Your task to perform on an android device: change timer sound Image 0: 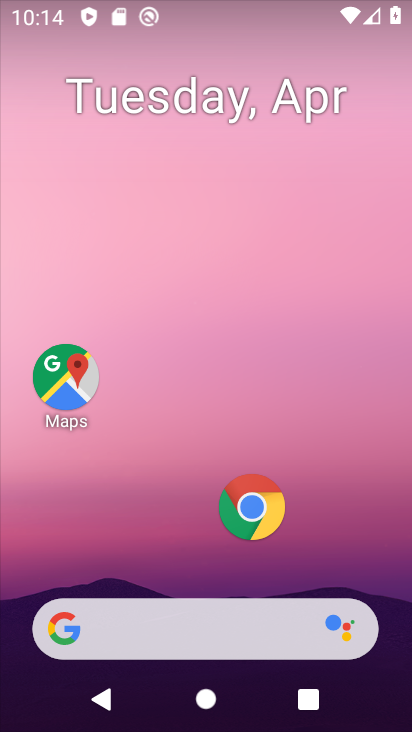
Step 0: drag from (82, 460) to (166, 249)
Your task to perform on an android device: change timer sound Image 1: 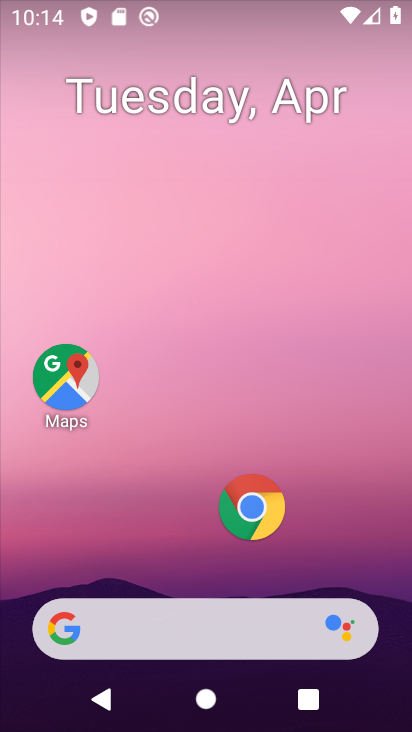
Step 1: drag from (170, 430) to (287, 223)
Your task to perform on an android device: change timer sound Image 2: 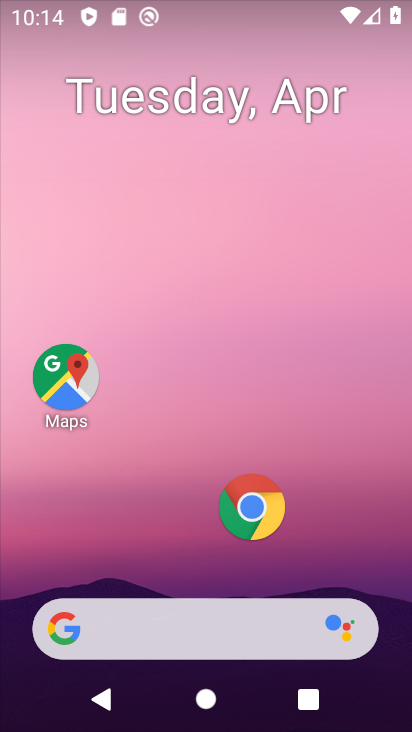
Step 2: drag from (47, 461) to (161, 199)
Your task to perform on an android device: change timer sound Image 3: 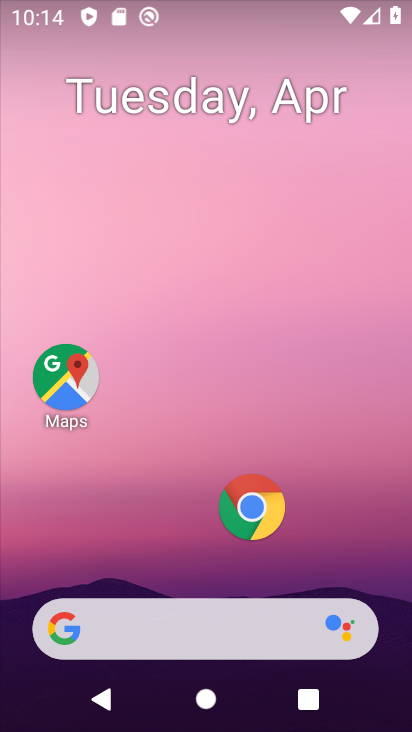
Step 3: drag from (13, 595) to (174, 188)
Your task to perform on an android device: change timer sound Image 4: 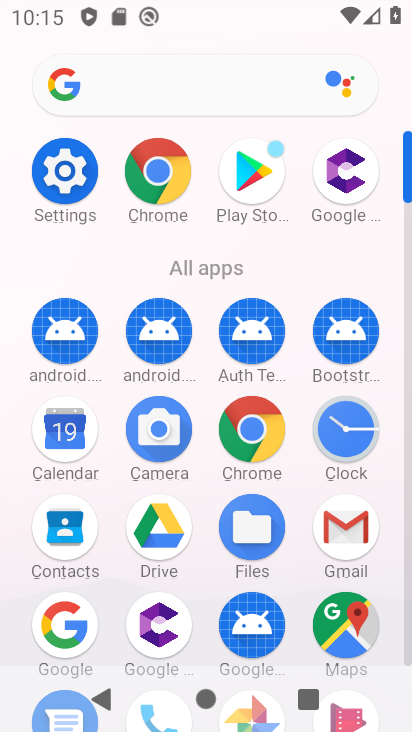
Step 4: click (348, 438)
Your task to perform on an android device: change timer sound Image 5: 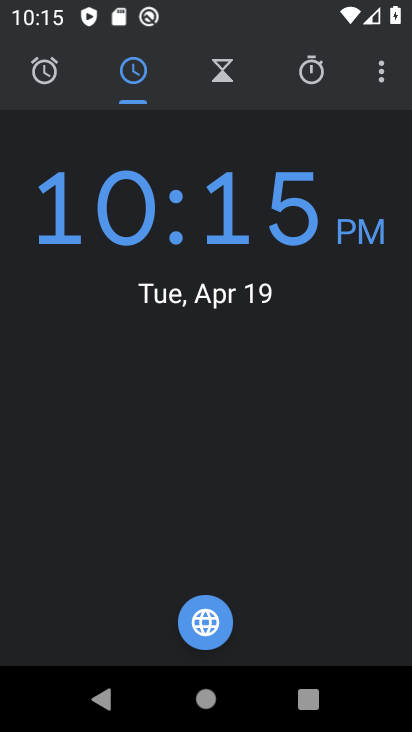
Step 5: click (377, 74)
Your task to perform on an android device: change timer sound Image 6: 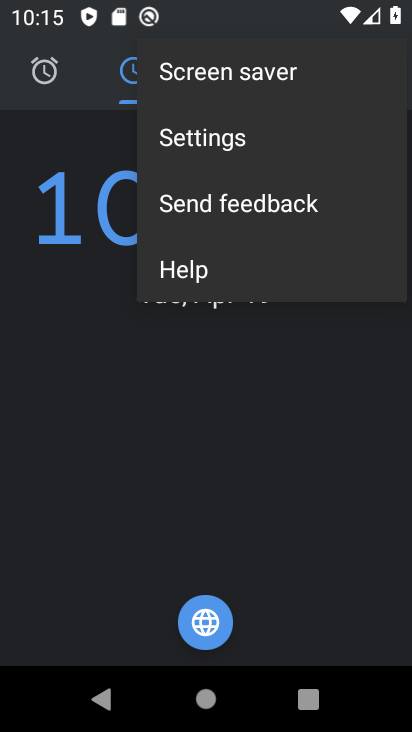
Step 6: click (340, 130)
Your task to perform on an android device: change timer sound Image 7: 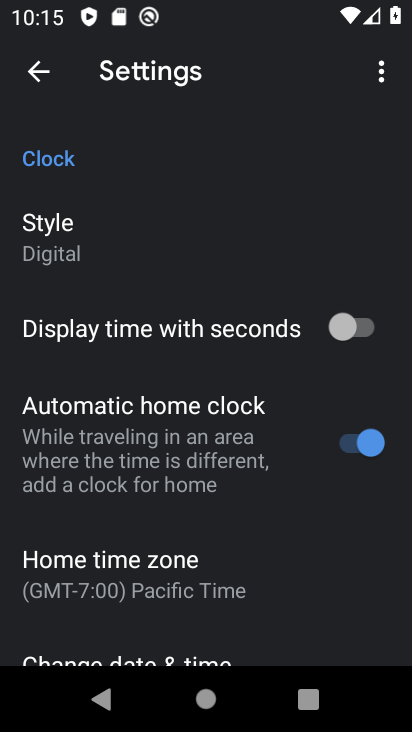
Step 7: drag from (183, 623) to (251, 272)
Your task to perform on an android device: change timer sound Image 8: 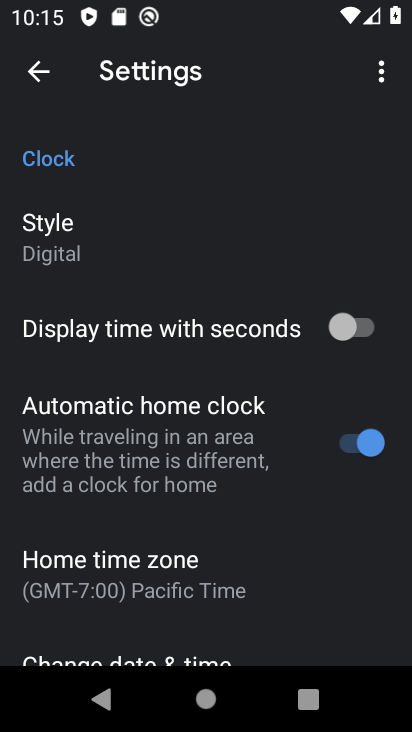
Step 8: drag from (99, 577) to (244, 159)
Your task to perform on an android device: change timer sound Image 9: 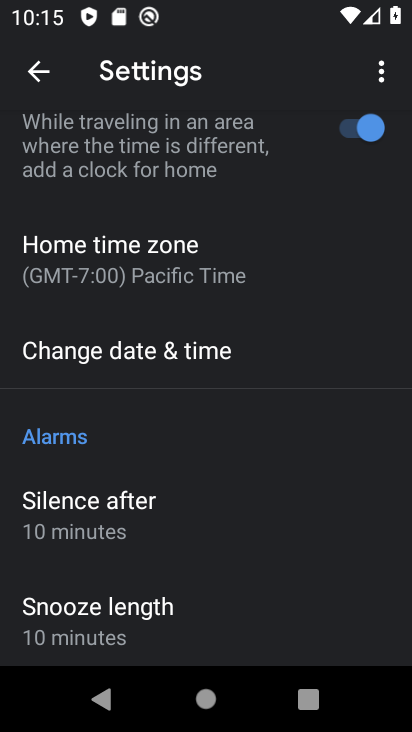
Step 9: drag from (95, 622) to (219, 313)
Your task to perform on an android device: change timer sound Image 10: 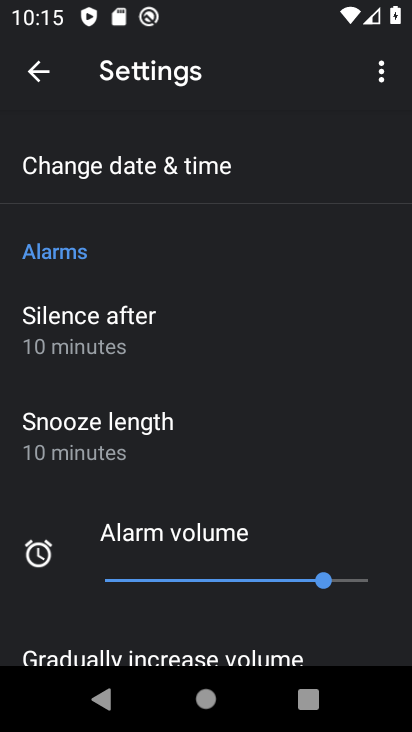
Step 10: drag from (65, 568) to (238, 282)
Your task to perform on an android device: change timer sound Image 11: 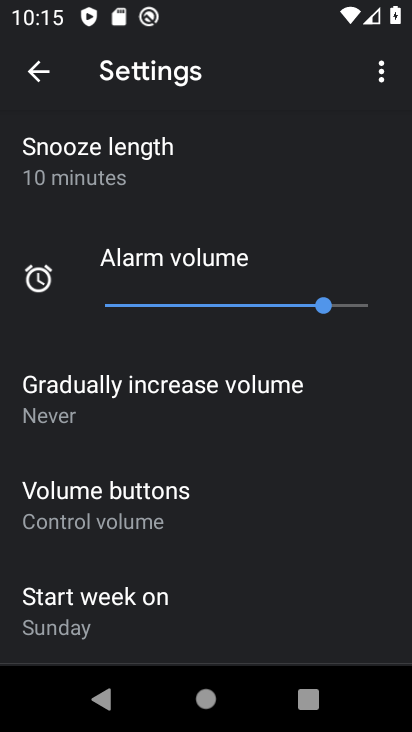
Step 11: drag from (99, 600) to (205, 325)
Your task to perform on an android device: change timer sound Image 12: 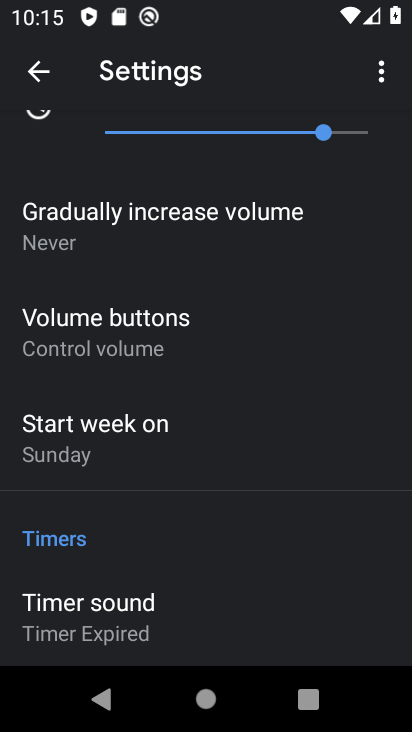
Step 12: click (96, 623)
Your task to perform on an android device: change timer sound Image 13: 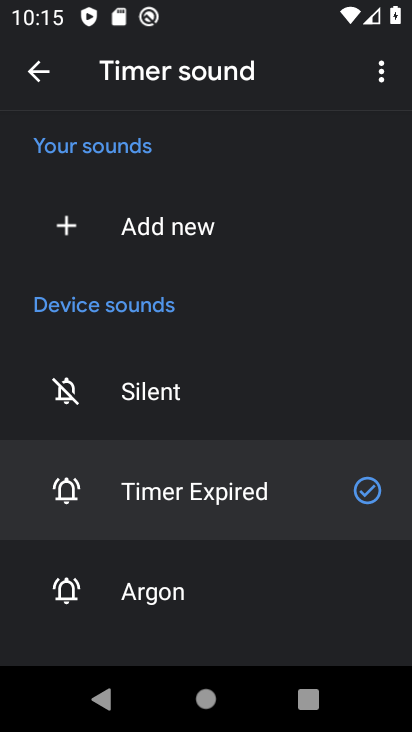
Step 13: click (105, 591)
Your task to perform on an android device: change timer sound Image 14: 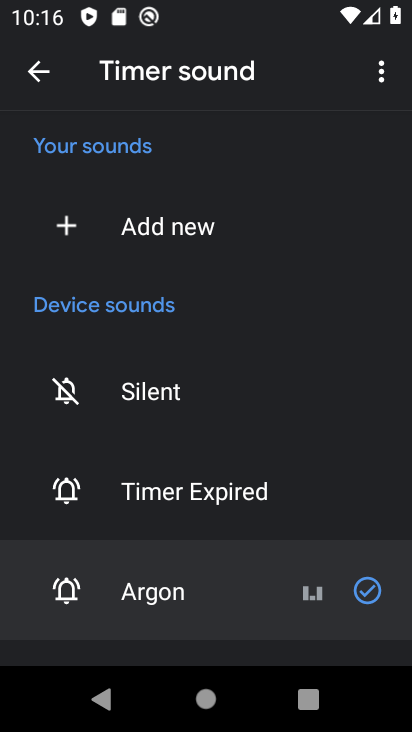
Step 14: task complete